Your task to perform on an android device: Open internet settings Image 0: 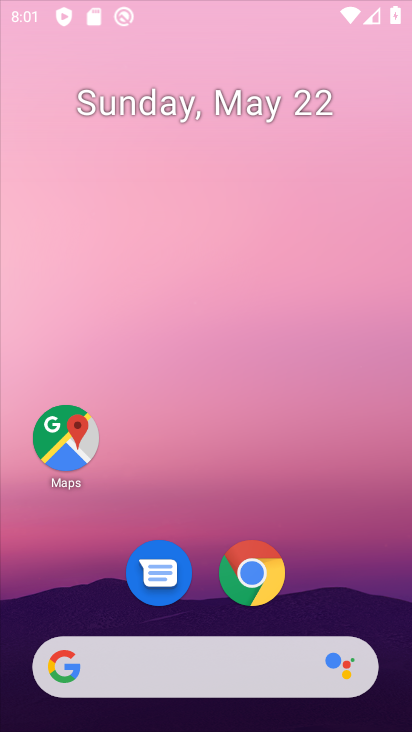
Step 0: click (246, 21)
Your task to perform on an android device: Open internet settings Image 1: 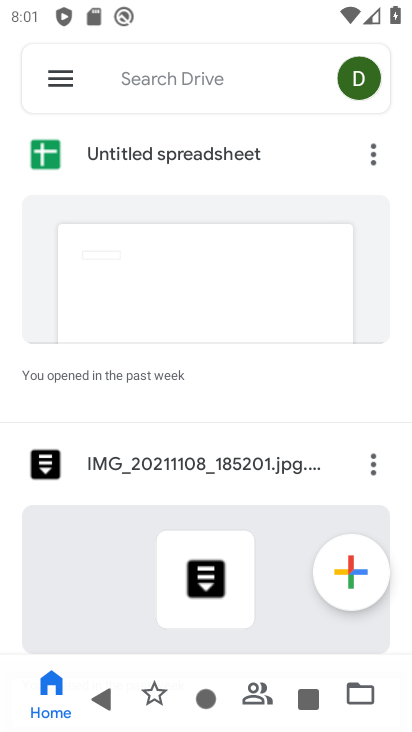
Step 1: drag from (209, 606) to (332, 129)
Your task to perform on an android device: Open internet settings Image 2: 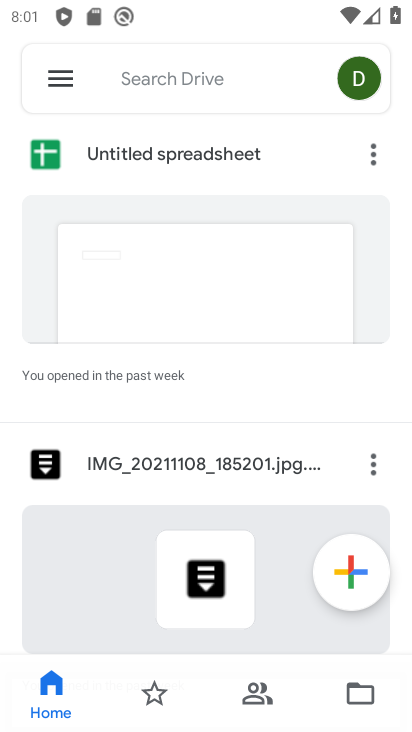
Step 2: press home button
Your task to perform on an android device: Open internet settings Image 3: 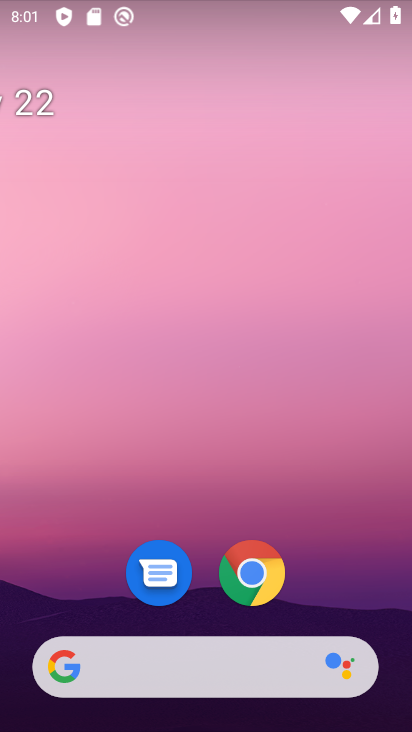
Step 3: drag from (187, 624) to (189, 39)
Your task to perform on an android device: Open internet settings Image 4: 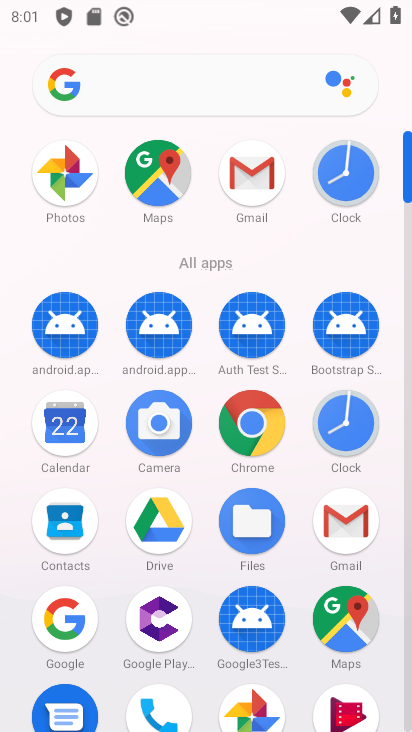
Step 4: drag from (210, 704) to (184, 279)
Your task to perform on an android device: Open internet settings Image 5: 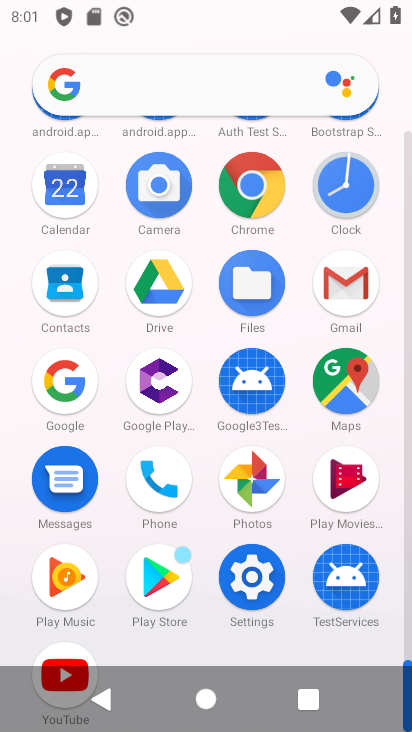
Step 5: click (252, 574)
Your task to perform on an android device: Open internet settings Image 6: 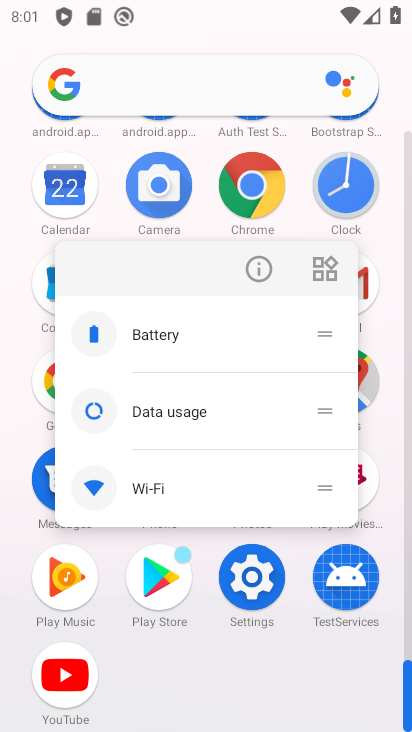
Step 6: click (262, 262)
Your task to perform on an android device: Open internet settings Image 7: 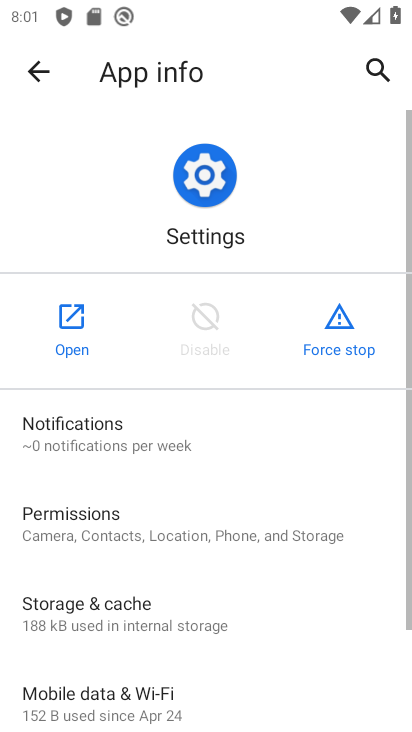
Step 7: click (72, 324)
Your task to perform on an android device: Open internet settings Image 8: 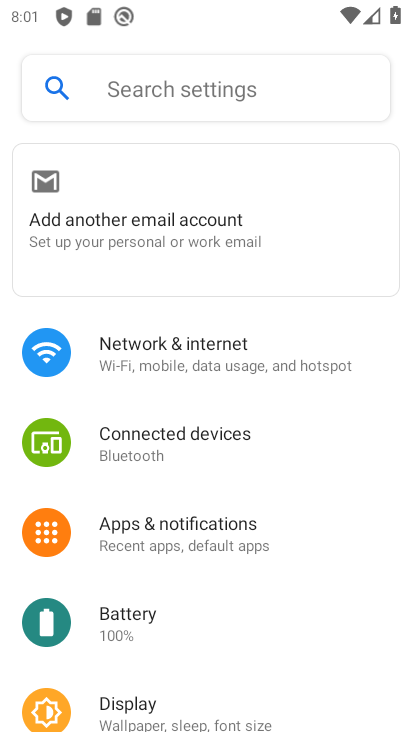
Step 8: drag from (245, 531) to (274, 235)
Your task to perform on an android device: Open internet settings Image 9: 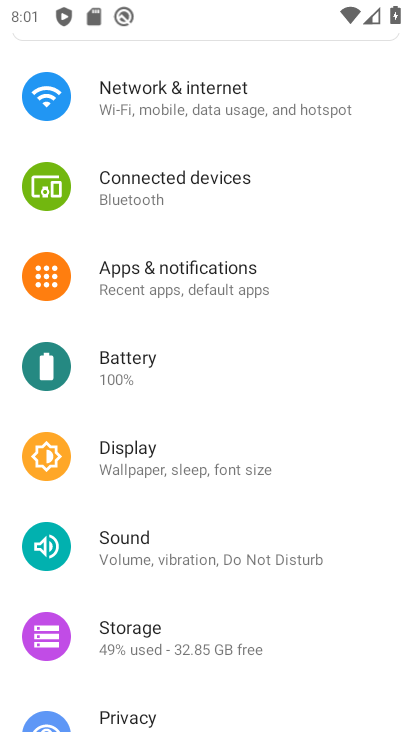
Step 9: click (227, 103)
Your task to perform on an android device: Open internet settings Image 10: 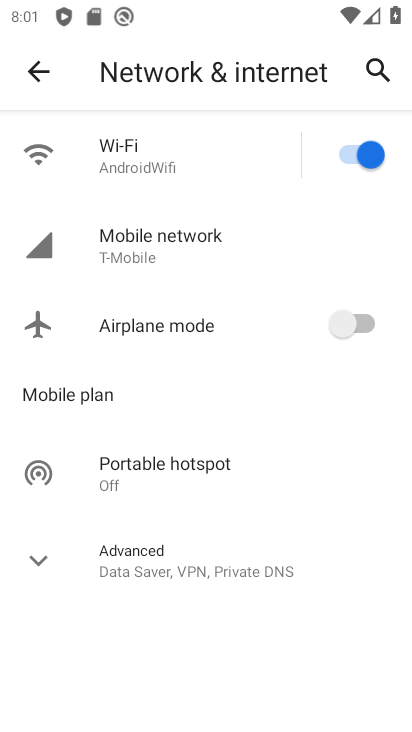
Step 10: task complete